Your task to perform on an android device: allow cookies in the chrome app Image 0: 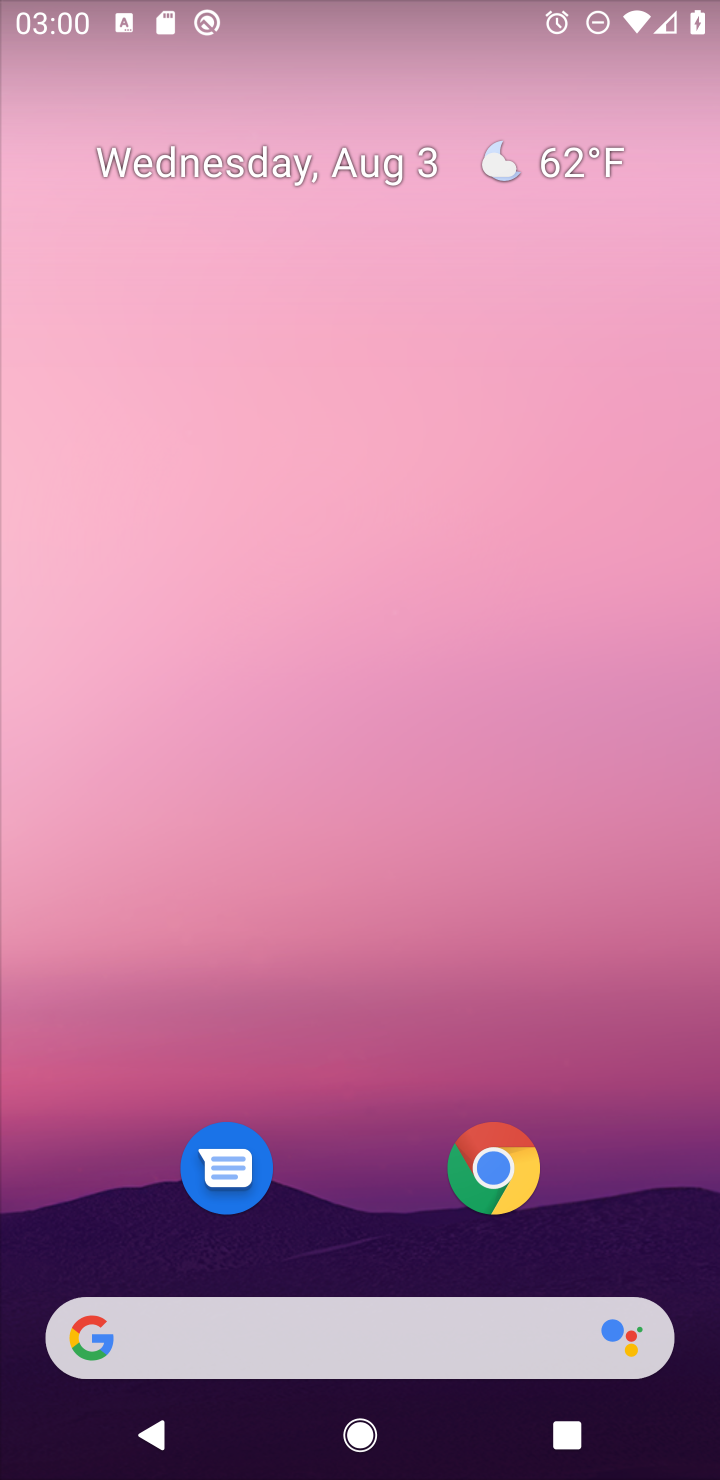
Step 0: click (486, 1172)
Your task to perform on an android device: allow cookies in the chrome app Image 1: 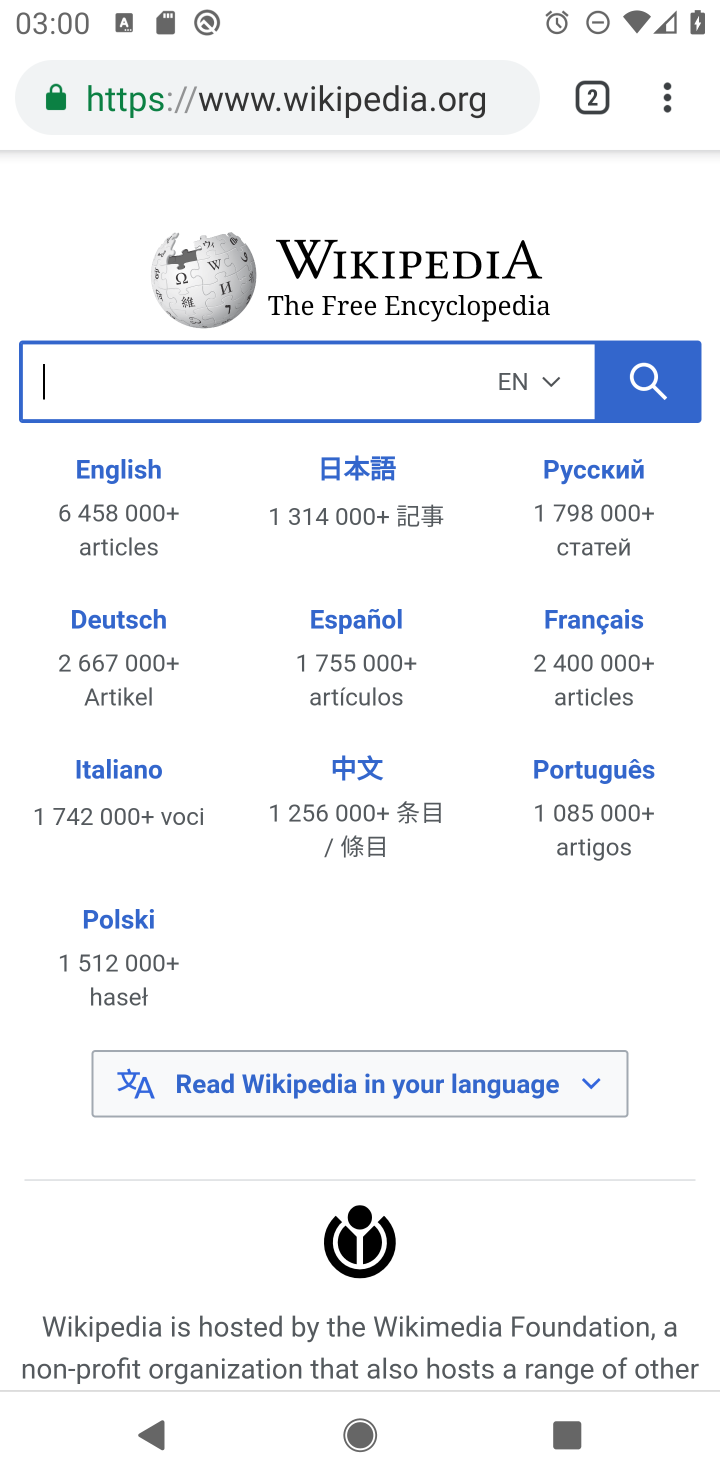
Step 1: click (660, 111)
Your task to perform on an android device: allow cookies in the chrome app Image 2: 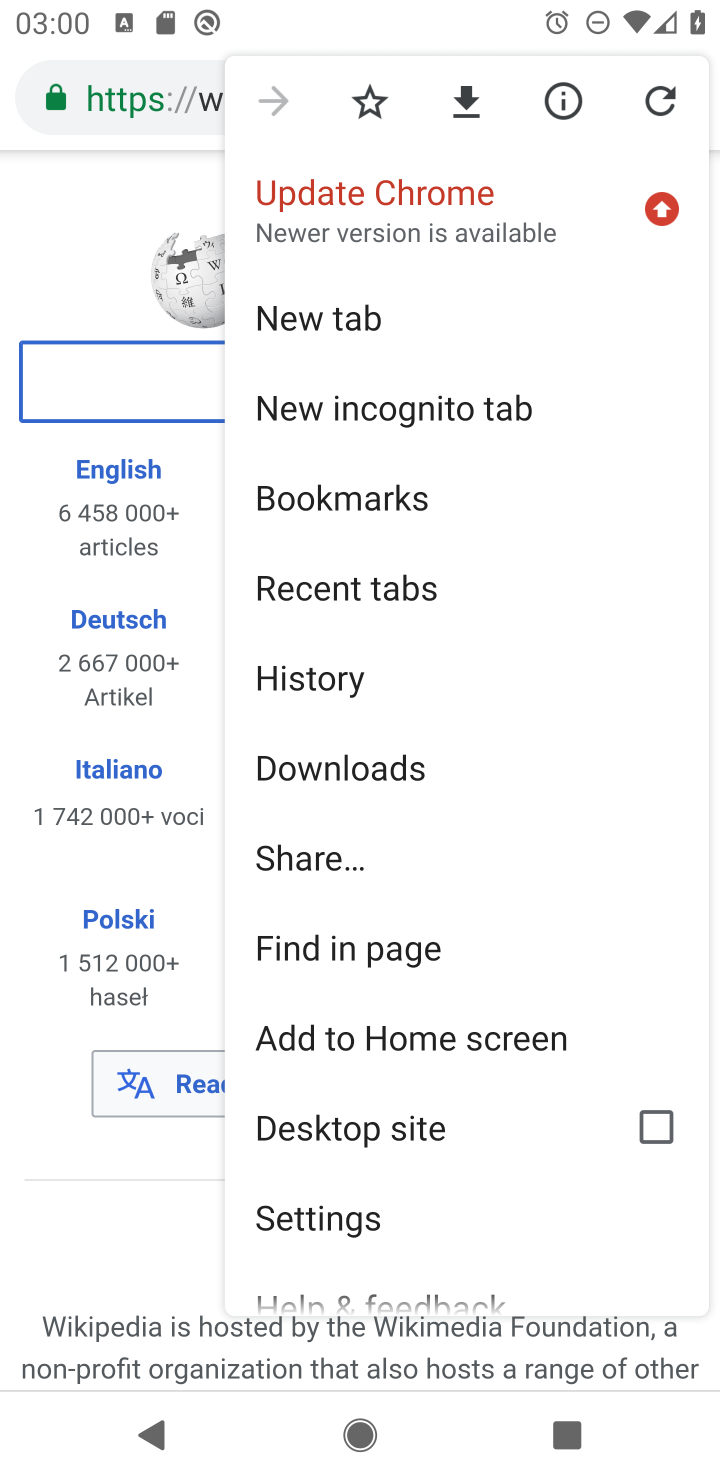
Step 2: click (297, 680)
Your task to perform on an android device: allow cookies in the chrome app Image 3: 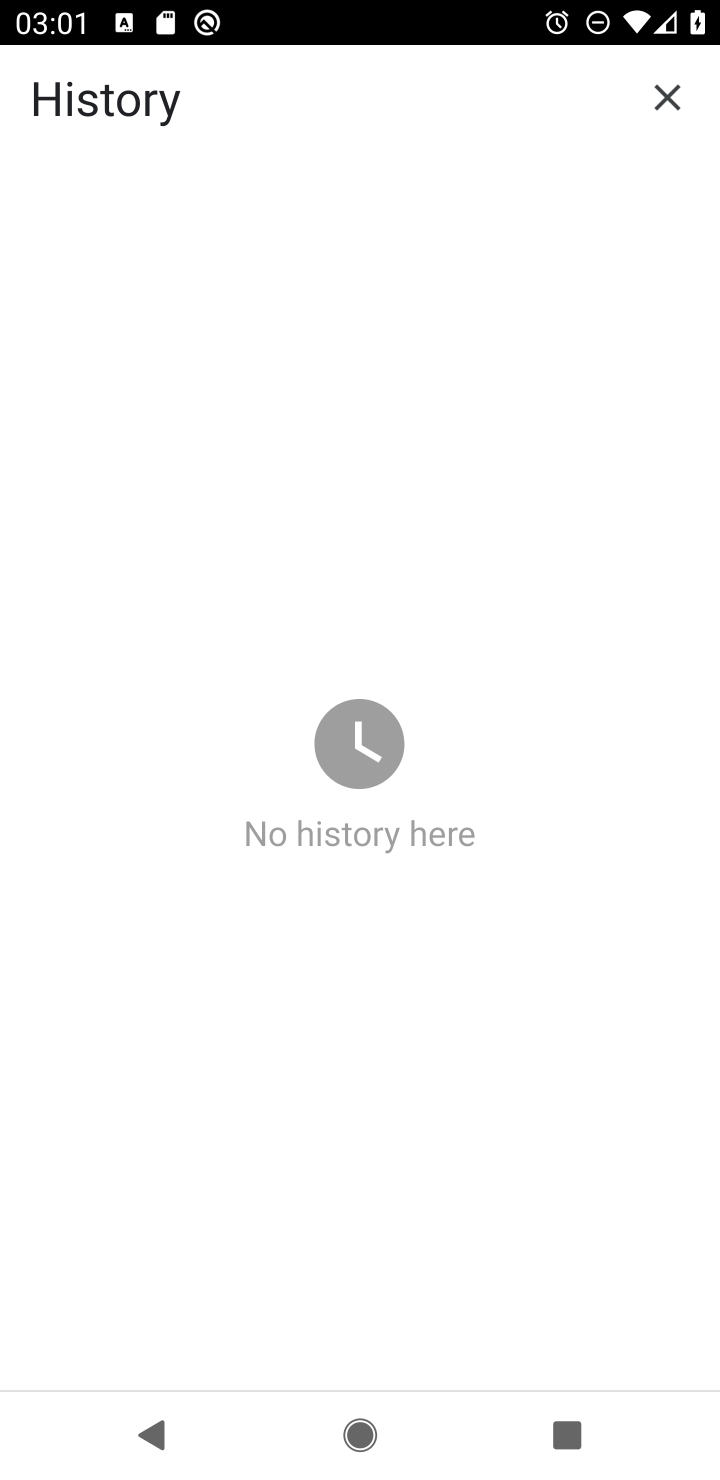
Step 3: task complete